Your task to perform on an android device: When is my next appointment? Image 0: 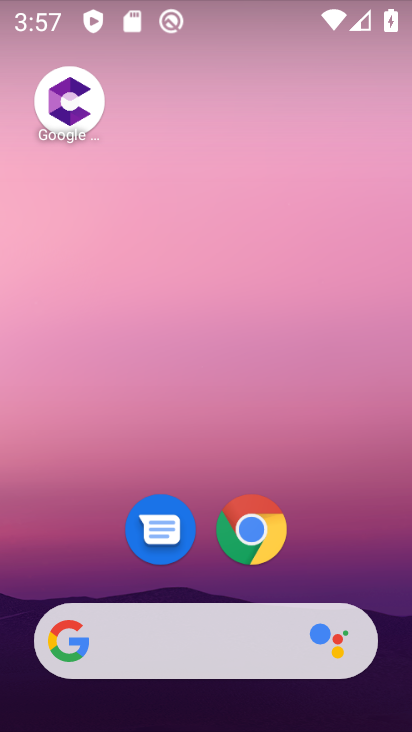
Step 0: drag from (333, 519) to (267, 15)
Your task to perform on an android device: When is my next appointment? Image 1: 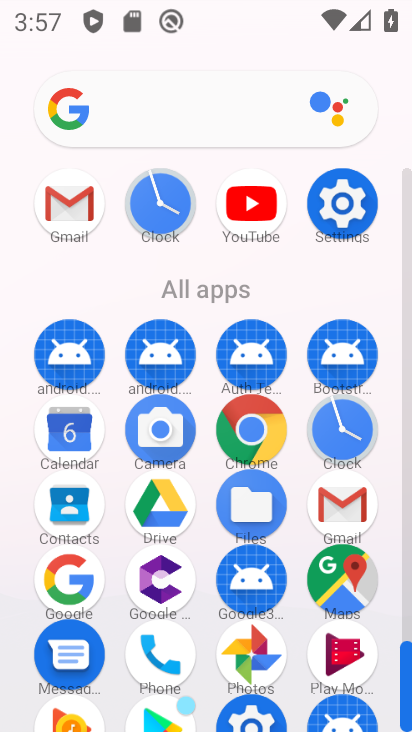
Step 1: click (70, 438)
Your task to perform on an android device: When is my next appointment? Image 2: 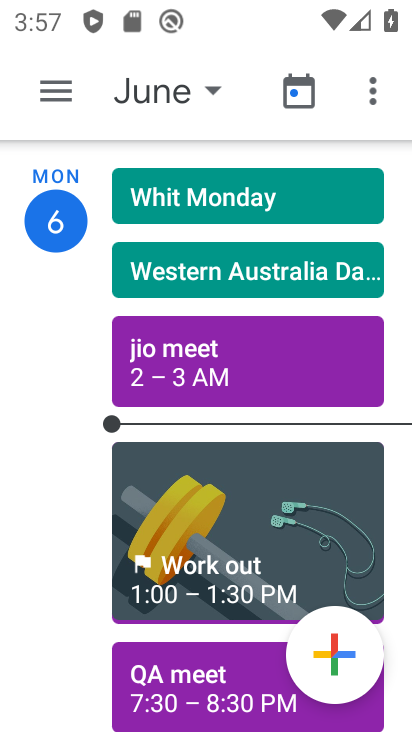
Step 2: click (300, 94)
Your task to perform on an android device: When is my next appointment? Image 3: 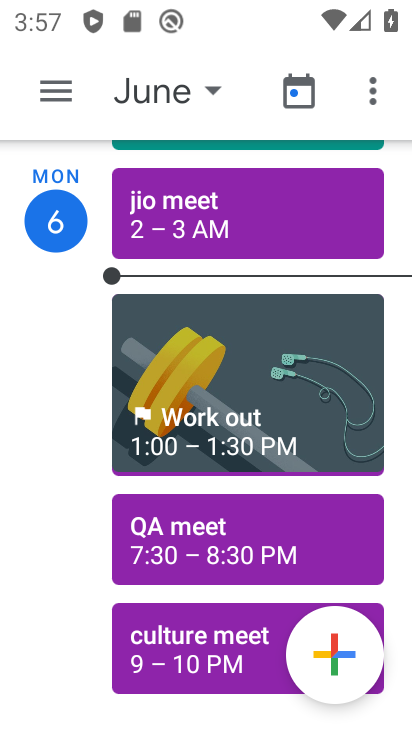
Step 3: click (208, 84)
Your task to perform on an android device: When is my next appointment? Image 4: 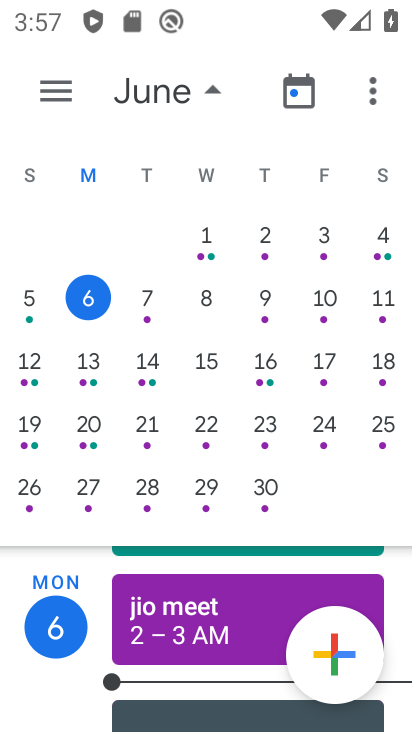
Step 4: click (145, 295)
Your task to perform on an android device: When is my next appointment? Image 5: 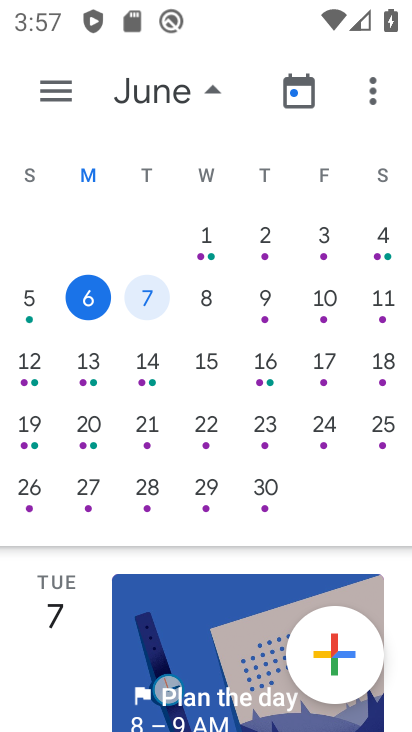
Step 5: click (56, 90)
Your task to perform on an android device: When is my next appointment? Image 6: 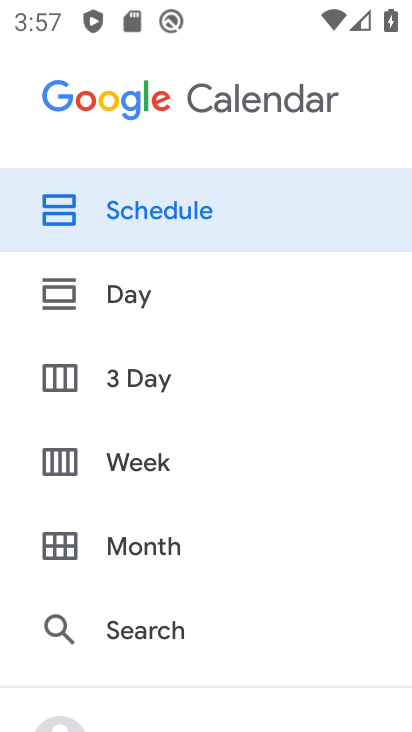
Step 6: click (99, 224)
Your task to perform on an android device: When is my next appointment? Image 7: 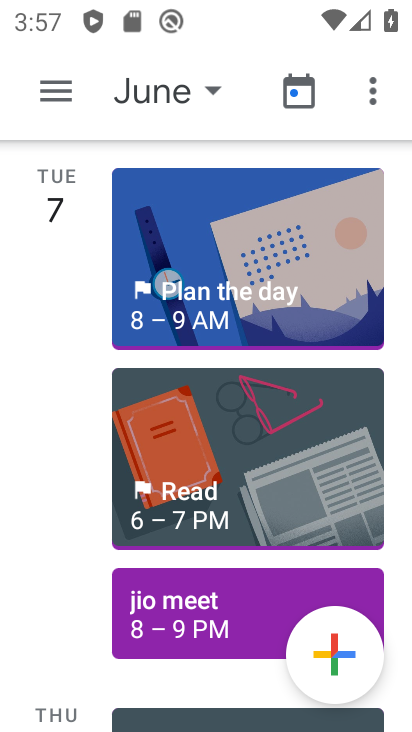
Step 7: task complete